Your task to perform on an android device: change alarm snooze length Image 0: 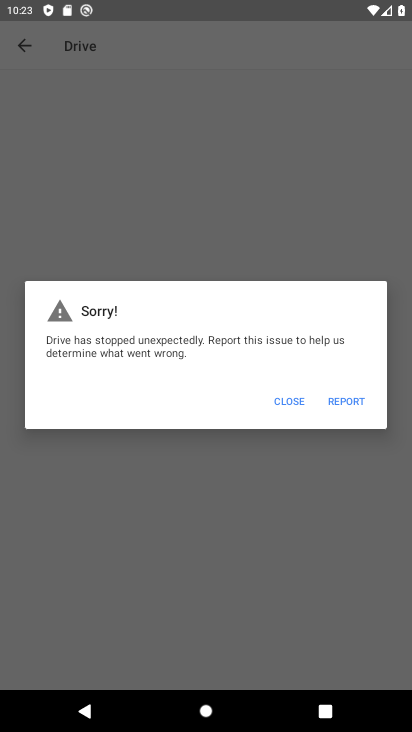
Step 0: press home button
Your task to perform on an android device: change alarm snooze length Image 1: 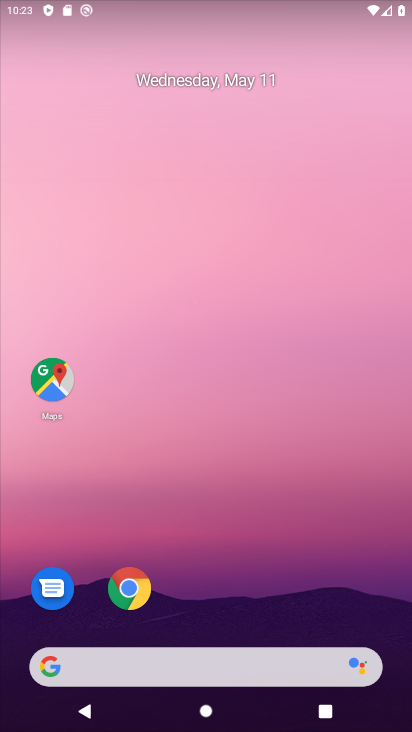
Step 1: drag from (216, 626) to (250, 103)
Your task to perform on an android device: change alarm snooze length Image 2: 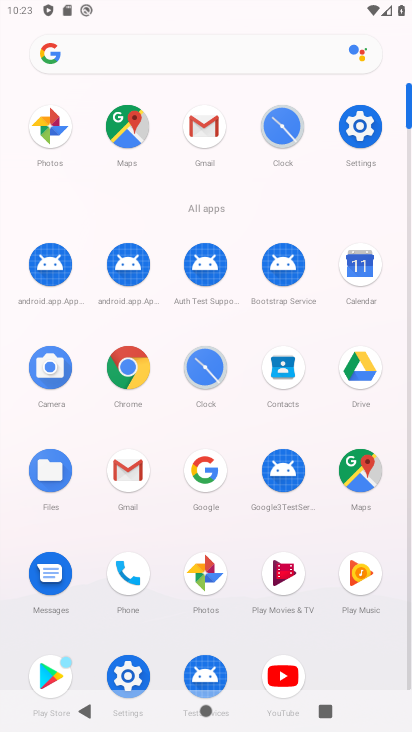
Step 2: click (271, 121)
Your task to perform on an android device: change alarm snooze length Image 3: 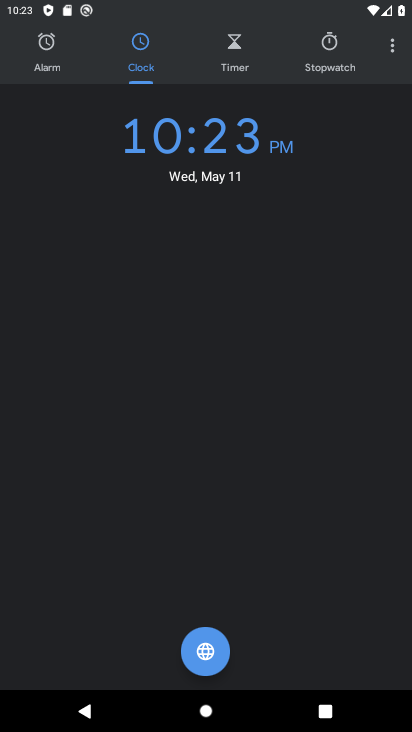
Step 3: click (395, 31)
Your task to perform on an android device: change alarm snooze length Image 4: 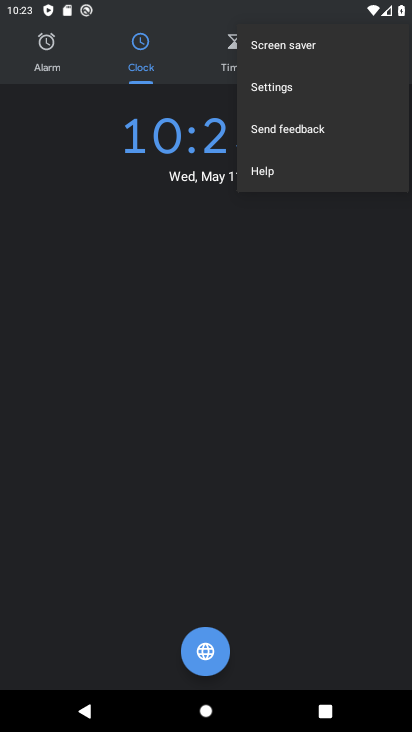
Step 4: click (273, 93)
Your task to perform on an android device: change alarm snooze length Image 5: 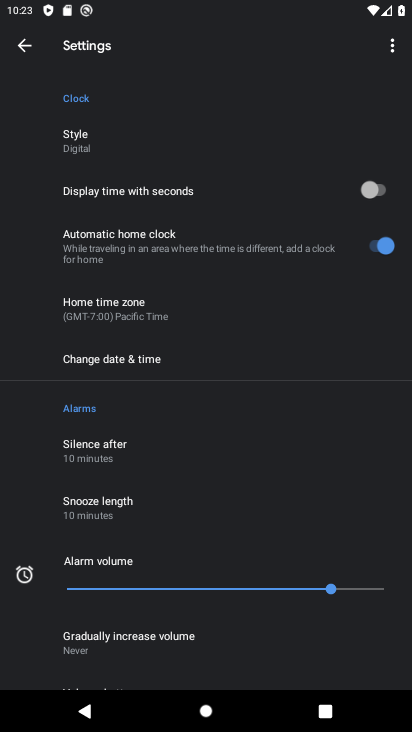
Step 5: click (126, 503)
Your task to perform on an android device: change alarm snooze length Image 6: 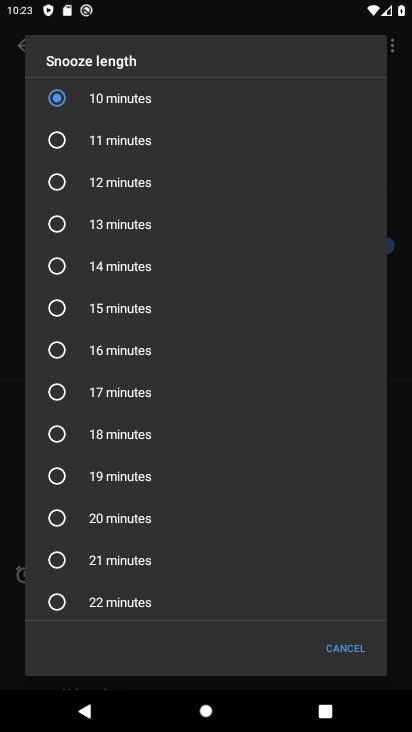
Step 6: click (59, 273)
Your task to perform on an android device: change alarm snooze length Image 7: 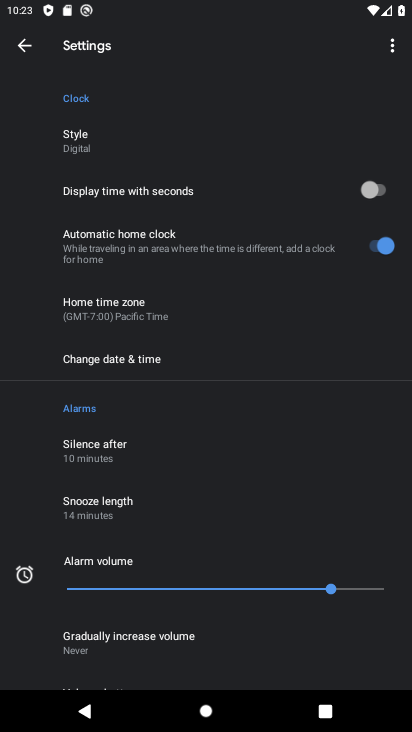
Step 7: task complete